Your task to perform on an android device: turn on the 24-hour format for clock Image 0: 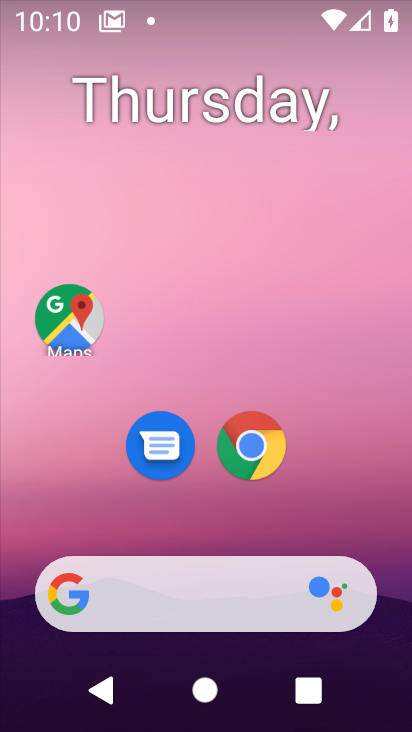
Step 0: drag from (225, 580) to (312, 355)
Your task to perform on an android device: turn on the 24-hour format for clock Image 1: 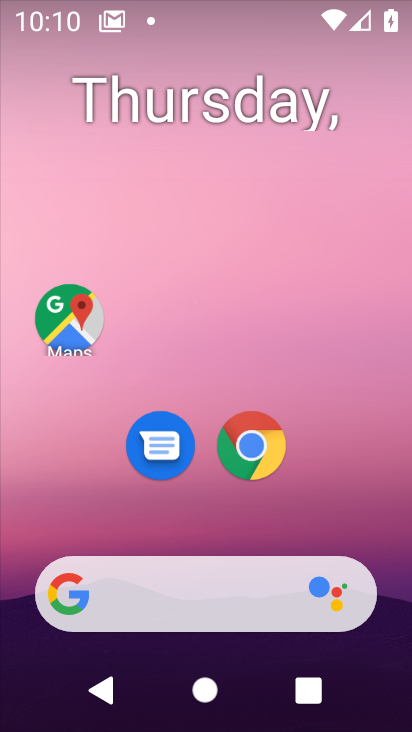
Step 1: drag from (260, 583) to (239, 25)
Your task to perform on an android device: turn on the 24-hour format for clock Image 2: 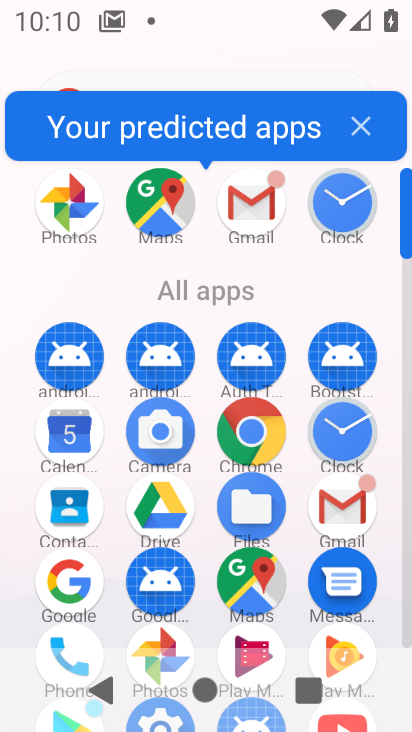
Step 2: drag from (230, 564) to (220, 167)
Your task to perform on an android device: turn on the 24-hour format for clock Image 3: 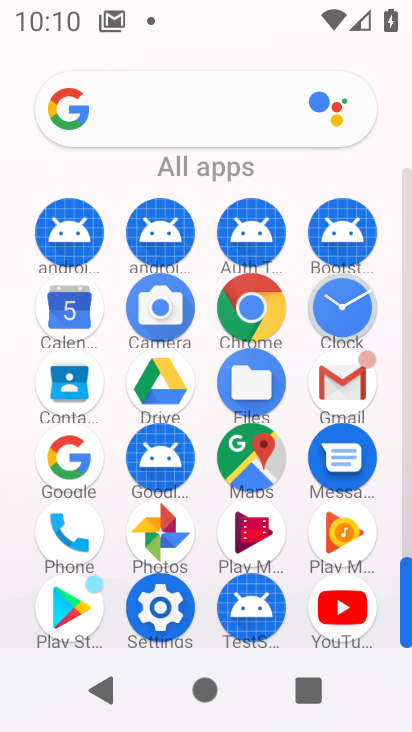
Step 3: click (146, 601)
Your task to perform on an android device: turn on the 24-hour format for clock Image 4: 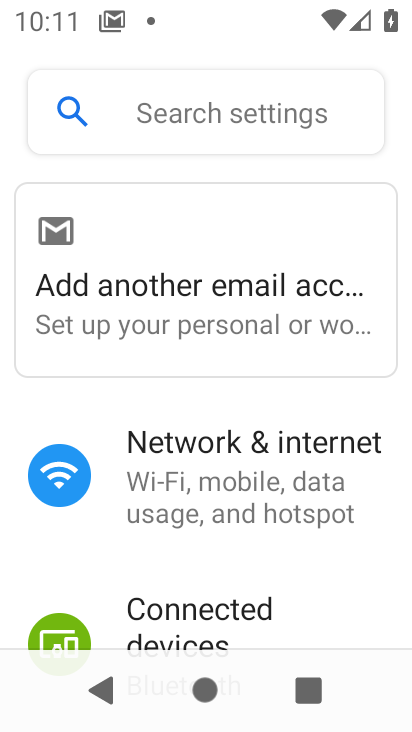
Step 4: drag from (256, 553) to (244, 45)
Your task to perform on an android device: turn on the 24-hour format for clock Image 5: 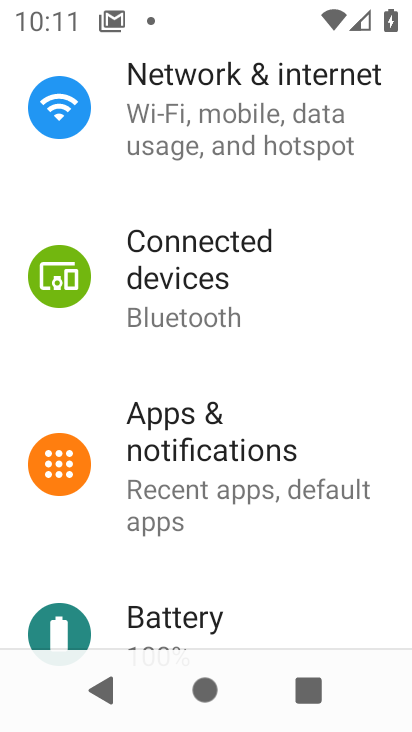
Step 5: drag from (342, 565) to (274, 4)
Your task to perform on an android device: turn on the 24-hour format for clock Image 6: 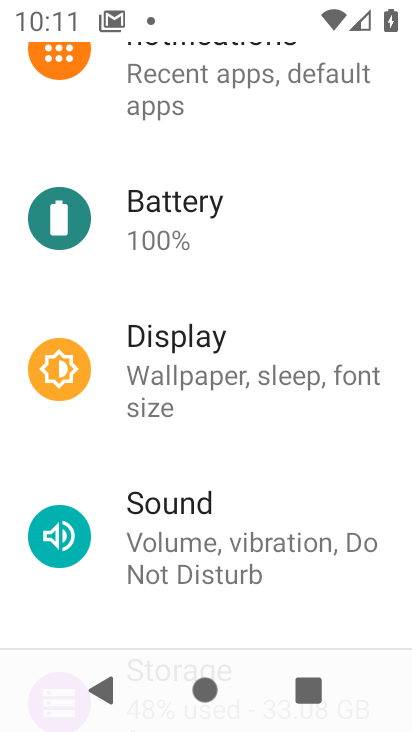
Step 6: drag from (325, 557) to (299, 0)
Your task to perform on an android device: turn on the 24-hour format for clock Image 7: 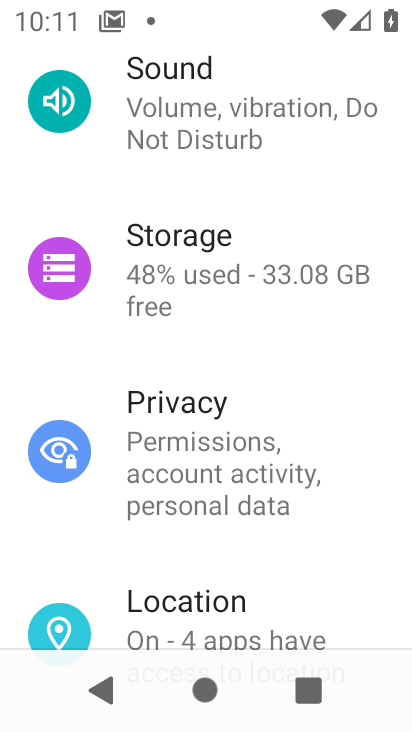
Step 7: drag from (224, 573) to (231, 62)
Your task to perform on an android device: turn on the 24-hour format for clock Image 8: 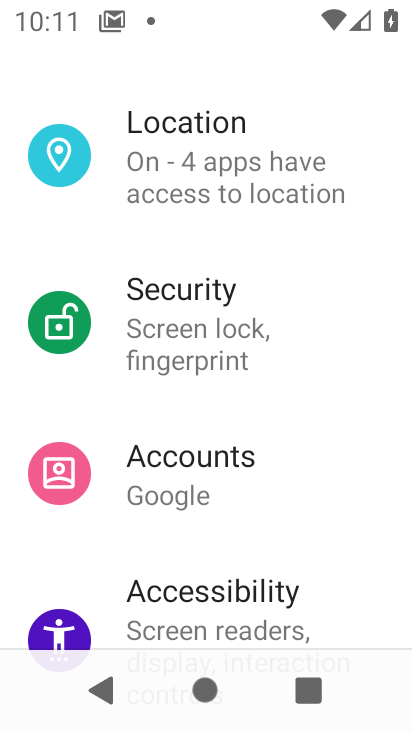
Step 8: drag from (296, 532) to (282, 190)
Your task to perform on an android device: turn on the 24-hour format for clock Image 9: 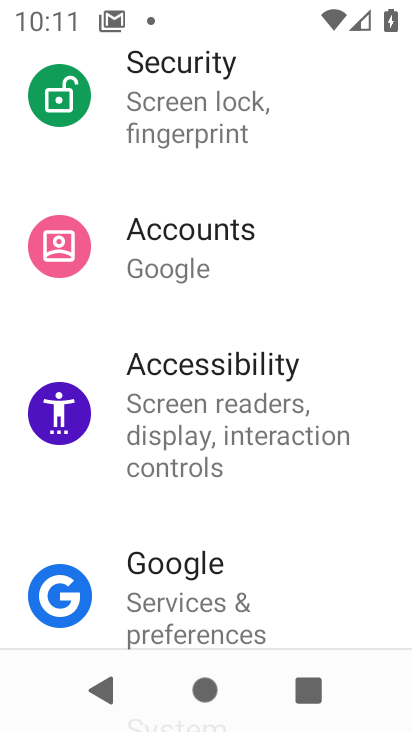
Step 9: drag from (242, 464) to (260, 52)
Your task to perform on an android device: turn on the 24-hour format for clock Image 10: 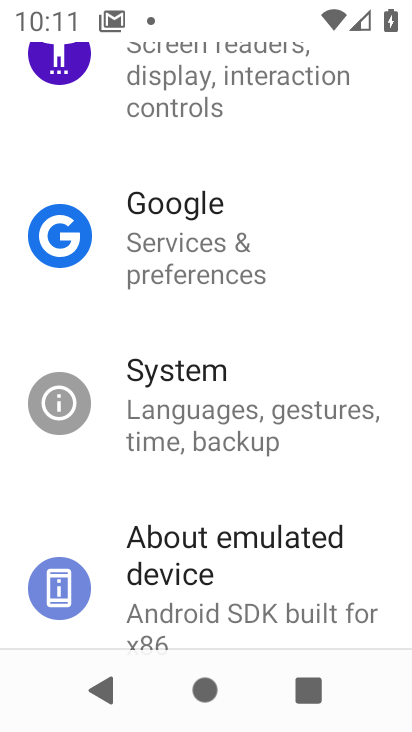
Step 10: click (200, 397)
Your task to perform on an android device: turn on the 24-hour format for clock Image 11: 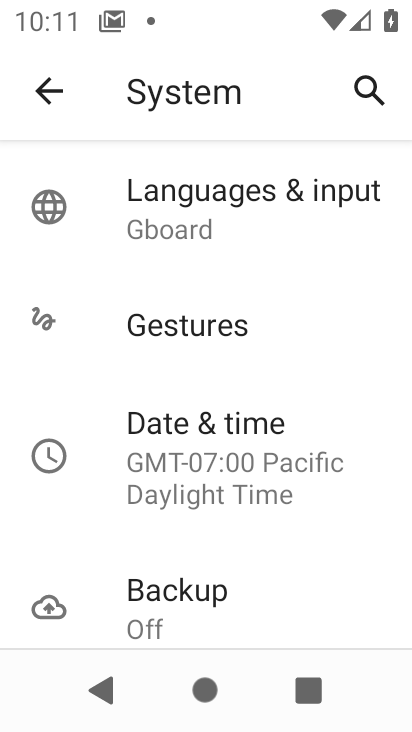
Step 11: click (213, 477)
Your task to perform on an android device: turn on the 24-hour format for clock Image 12: 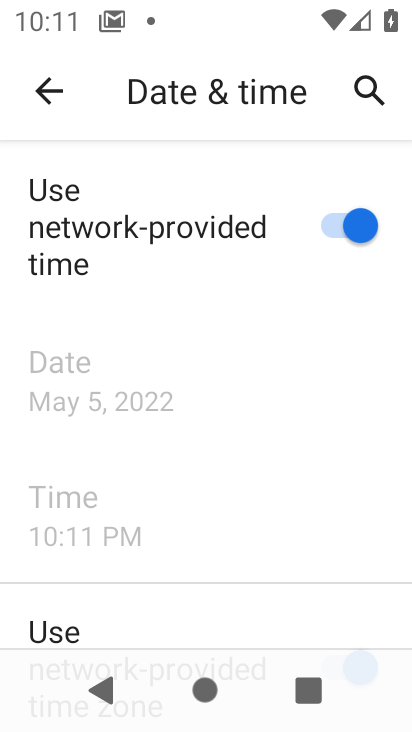
Step 12: drag from (213, 477) to (196, 78)
Your task to perform on an android device: turn on the 24-hour format for clock Image 13: 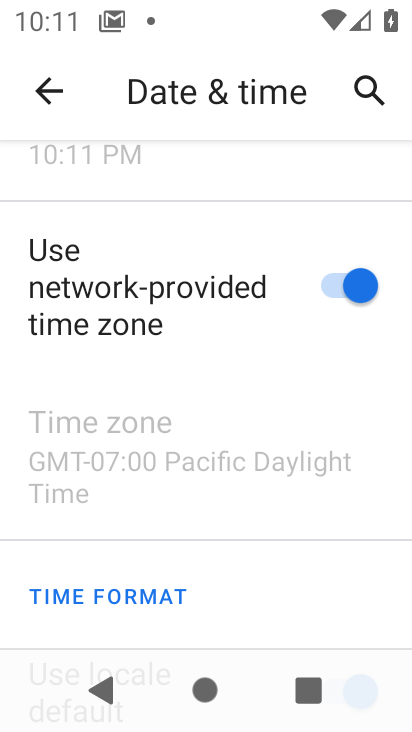
Step 13: drag from (198, 498) to (202, 133)
Your task to perform on an android device: turn on the 24-hour format for clock Image 14: 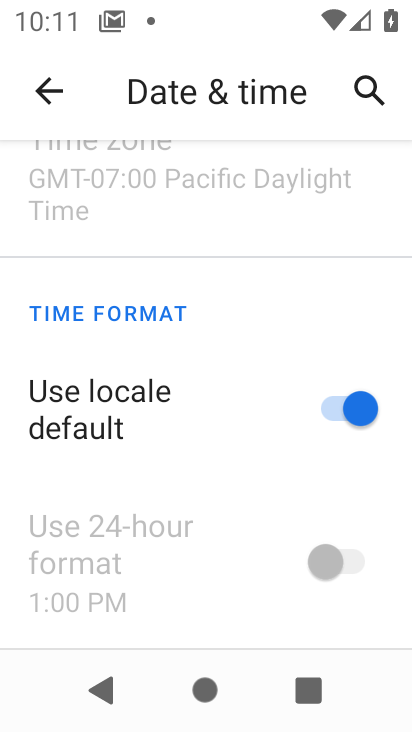
Step 14: click (357, 404)
Your task to perform on an android device: turn on the 24-hour format for clock Image 15: 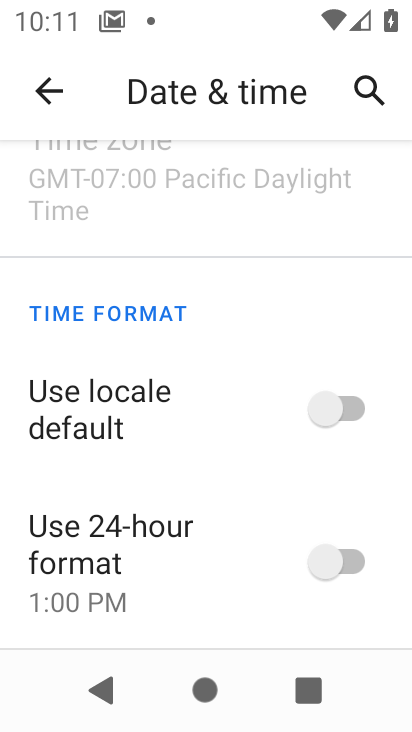
Step 15: click (349, 556)
Your task to perform on an android device: turn on the 24-hour format for clock Image 16: 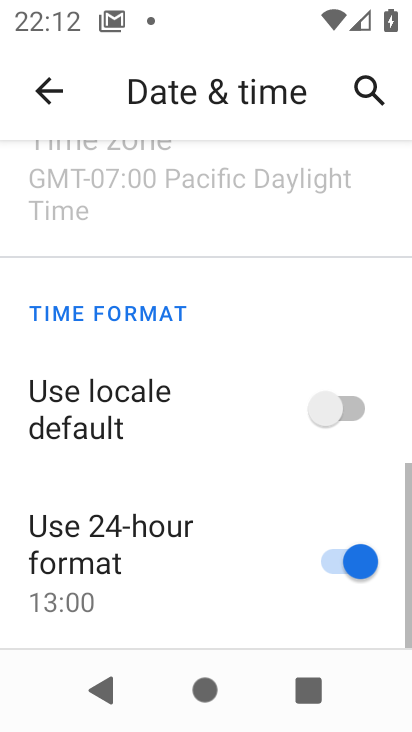
Step 16: task complete